Your task to perform on an android device: change notifications settings Image 0: 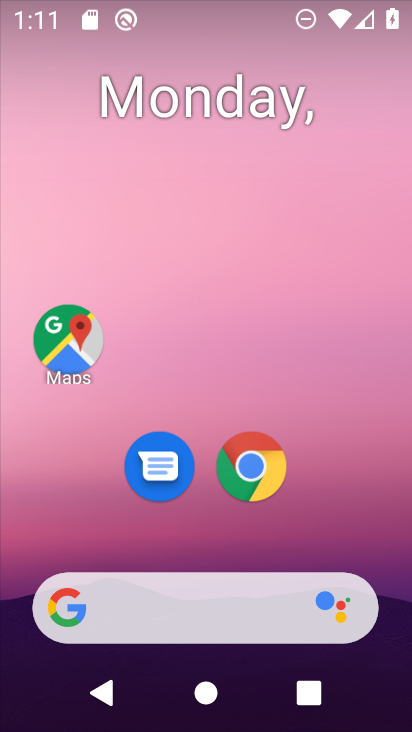
Step 0: drag from (208, 497) to (255, 47)
Your task to perform on an android device: change notifications settings Image 1: 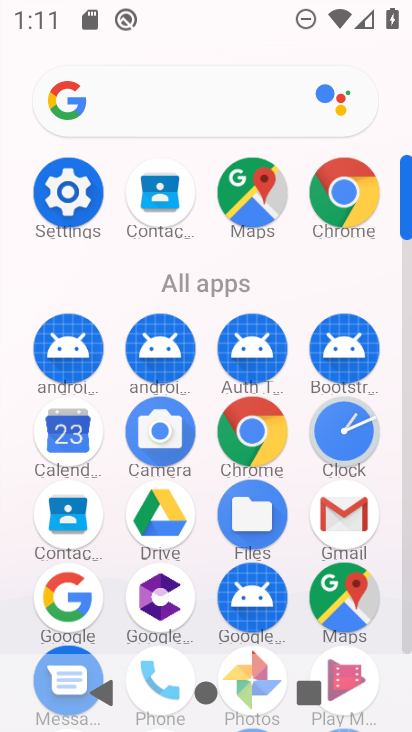
Step 1: click (79, 196)
Your task to perform on an android device: change notifications settings Image 2: 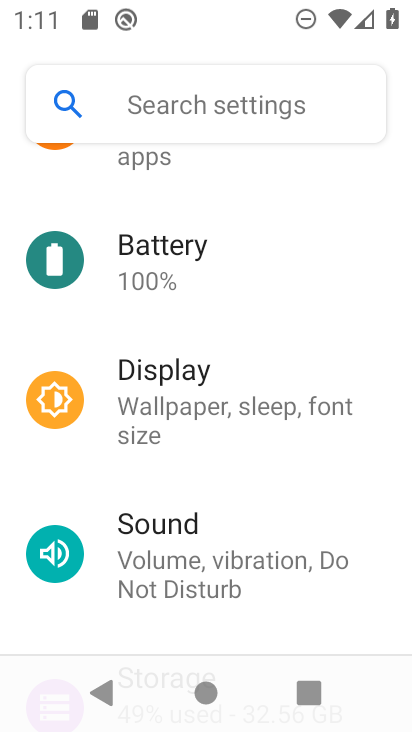
Step 2: drag from (198, 238) to (190, 601)
Your task to perform on an android device: change notifications settings Image 3: 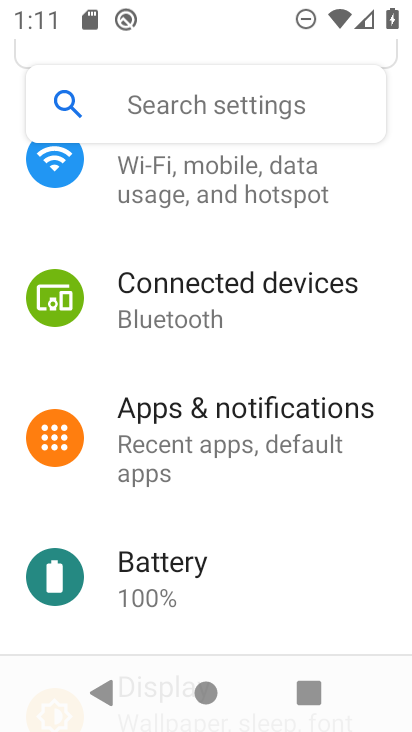
Step 3: click (289, 434)
Your task to perform on an android device: change notifications settings Image 4: 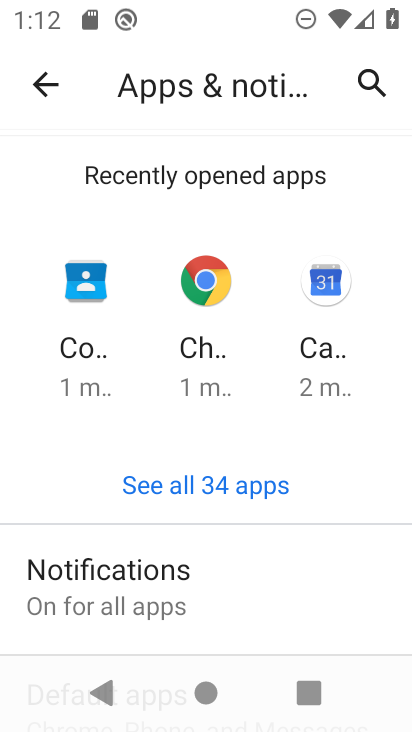
Step 4: click (129, 593)
Your task to perform on an android device: change notifications settings Image 5: 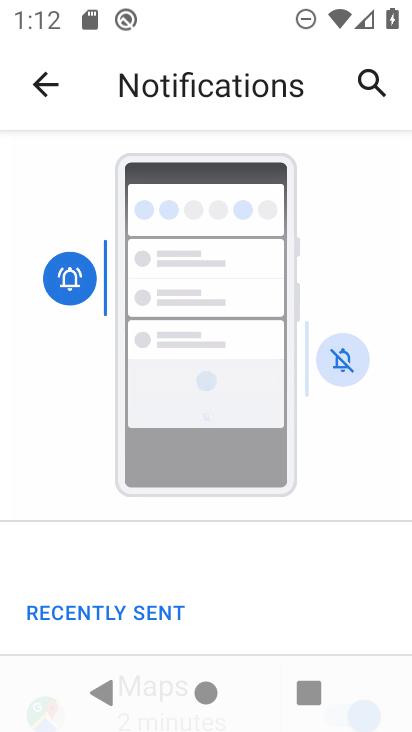
Step 5: drag from (194, 570) to (230, 209)
Your task to perform on an android device: change notifications settings Image 6: 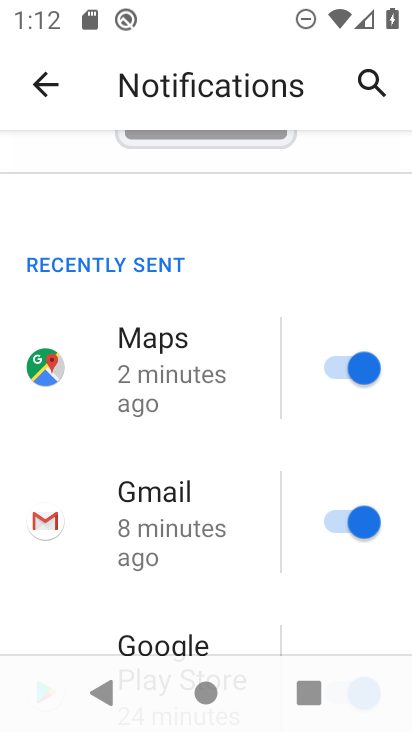
Step 6: drag from (146, 557) to (191, 214)
Your task to perform on an android device: change notifications settings Image 7: 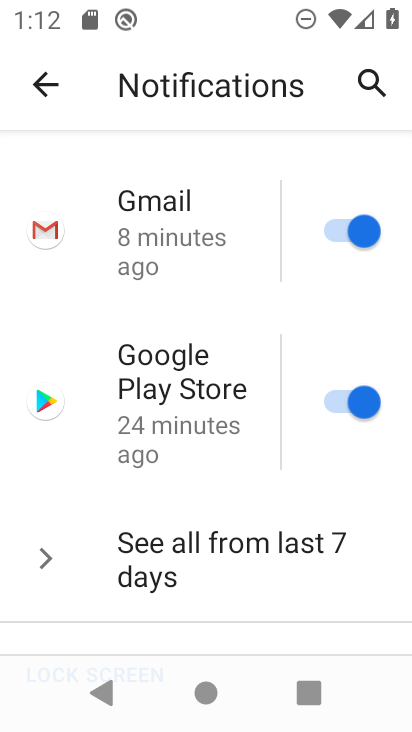
Step 7: drag from (164, 587) to (176, 312)
Your task to perform on an android device: change notifications settings Image 8: 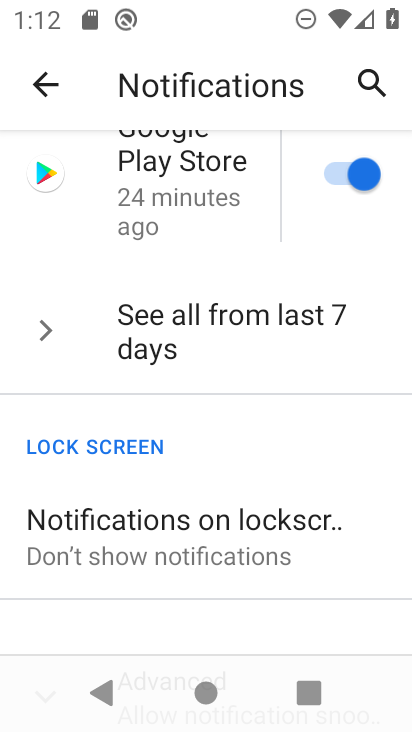
Step 8: drag from (314, 311) to (274, 634)
Your task to perform on an android device: change notifications settings Image 9: 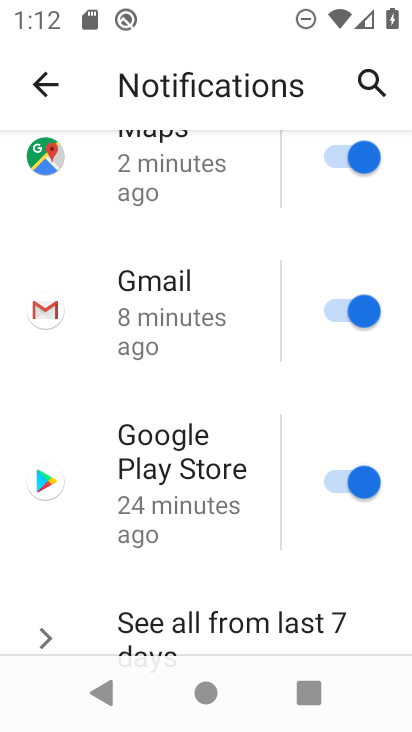
Step 9: click (331, 476)
Your task to perform on an android device: change notifications settings Image 10: 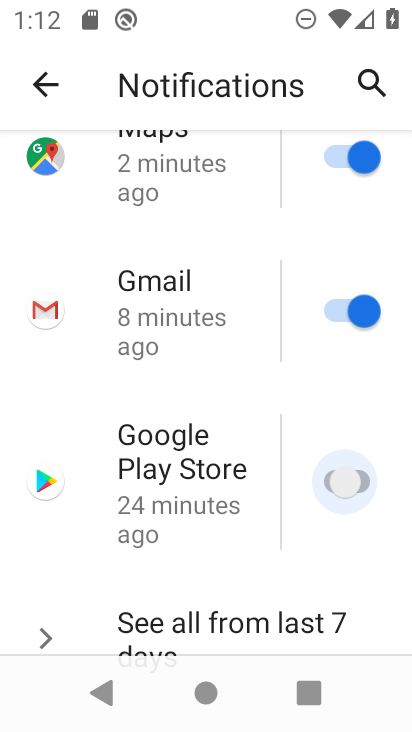
Step 10: click (321, 317)
Your task to perform on an android device: change notifications settings Image 11: 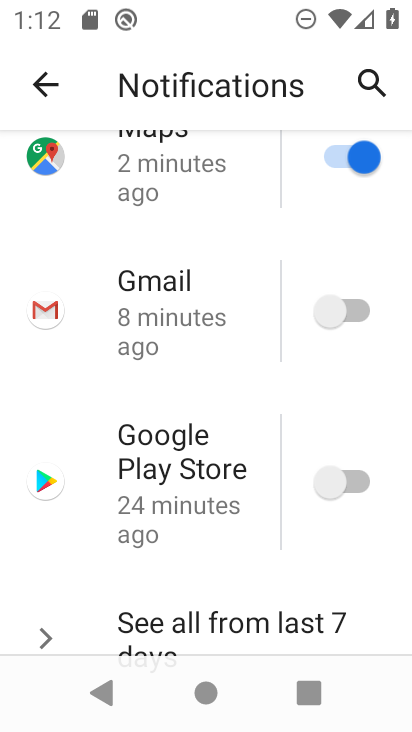
Step 11: click (324, 154)
Your task to perform on an android device: change notifications settings Image 12: 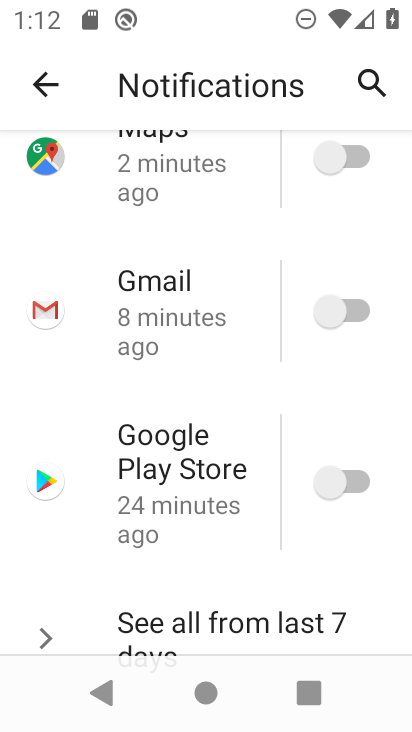
Step 12: drag from (205, 559) to (222, 438)
Your task to perform on an android device: change notifications settings Image 13: 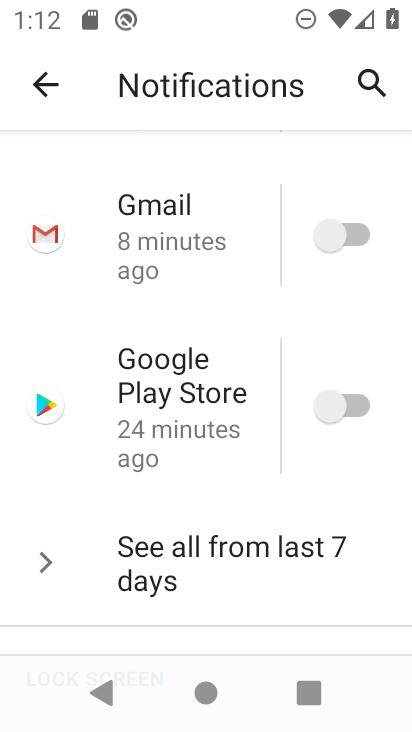
Step 13: click (199, 545)
Your task to perform on an android device: change notifications settings Image 14: 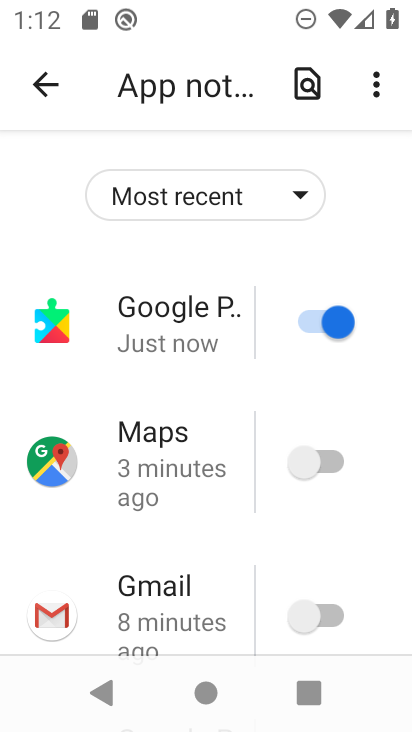
Step 14: drag from (199, 533) to (217, 328)
Your task to perform on an android device: change notifications settings Image 15: 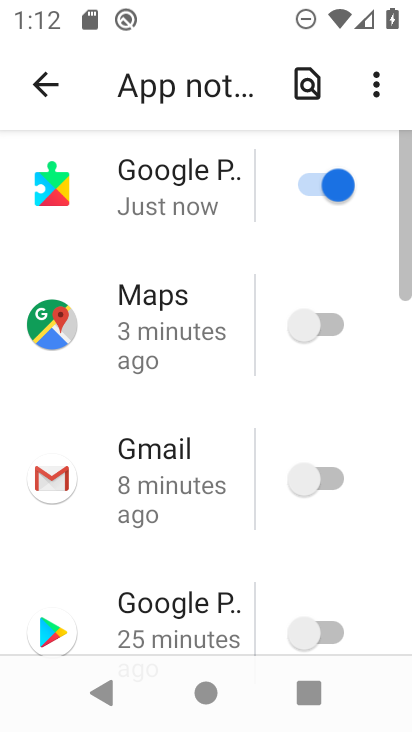
Step 15: click (309, 191)
Your task to perform on an android device: change notifications settings Image 16: 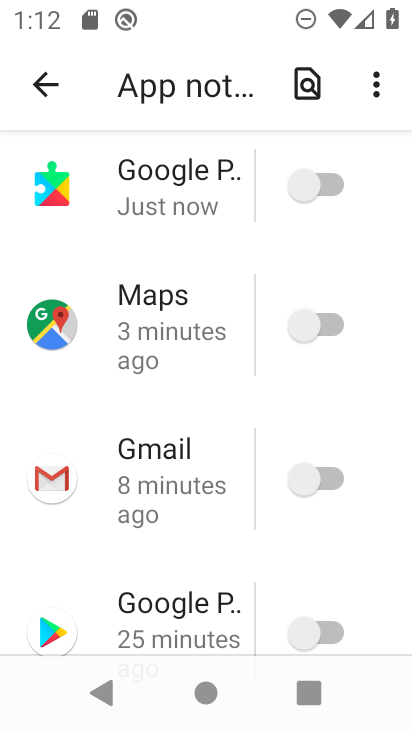
Step 16: drag from (182, 560) to (239, 16)
Your task to perform on an android device: change notifications settings Image 17: 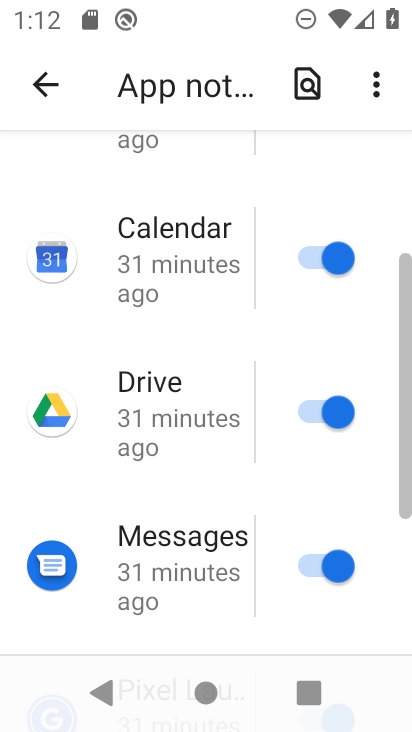
Step 17: click (283, 235)
Your task to perform on an android device: change notifications settings Image 18: 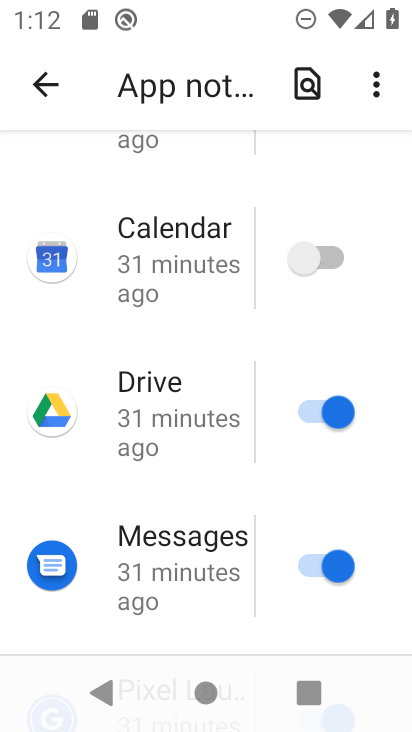
Step 18: click (301, 418)
Your task to perform on an android device: change notifications settings Image 19: 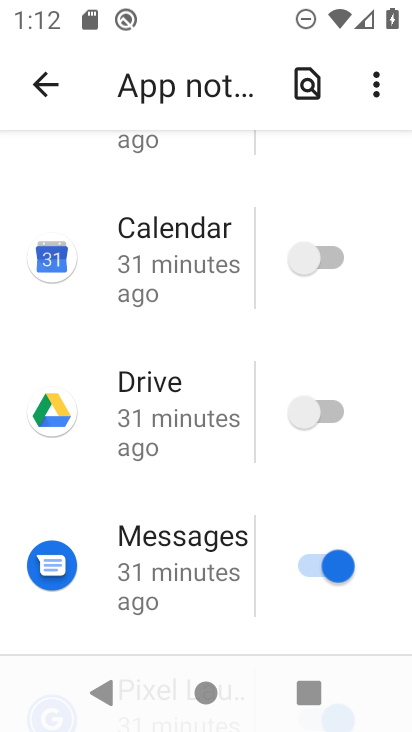
Step 19: click (299, 567)
Your task to perform on an android device: change notifications settings Image 20: 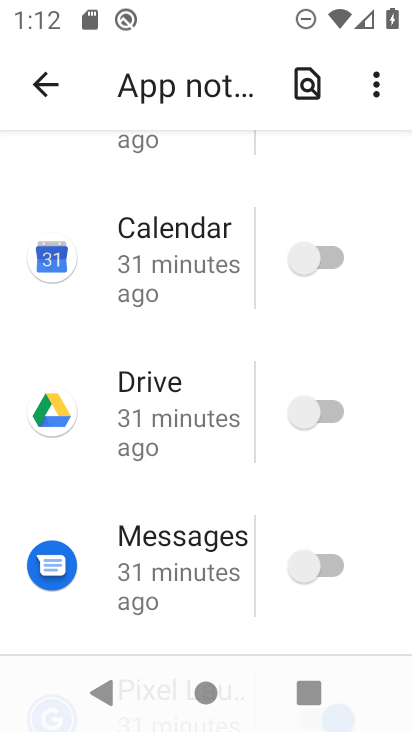
Step 20: drag from (117, 578) to (244, 55)
Your task to perform on an android device: change notifications settings Image 21: 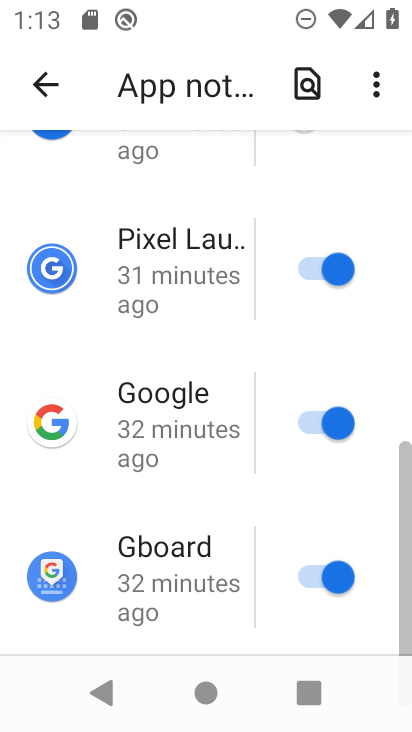
Step 21: click (310, 262)
Your task to perform on an android device: change notifications settings Image 22: 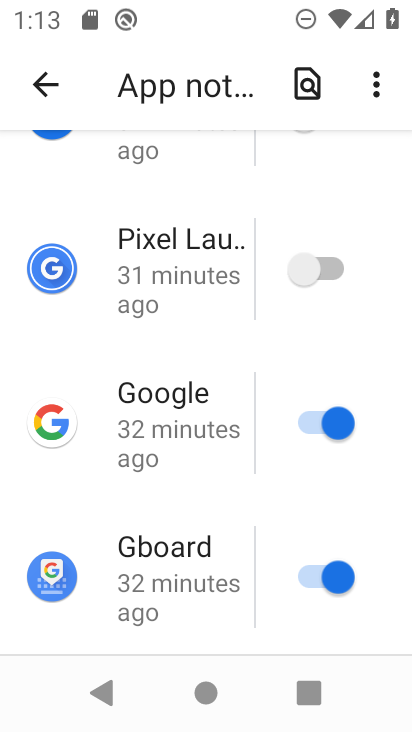
Step 22: click (306, 417)
Your task to perform on an android device: change notifications settings Image 23: 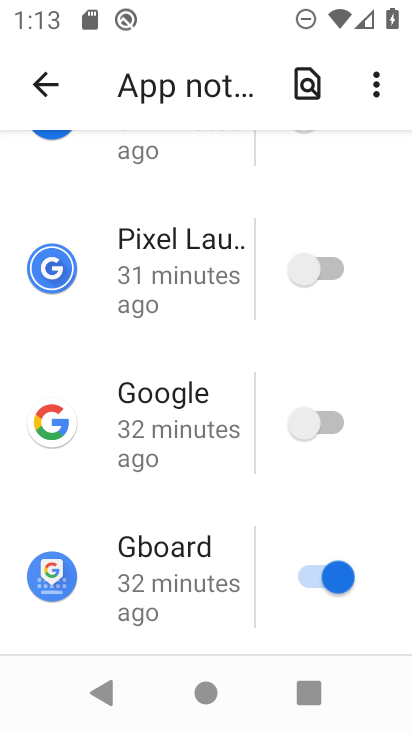
Step 23: click (311, 565)
Your task to perform on an android device: change notifications settings Image 24: 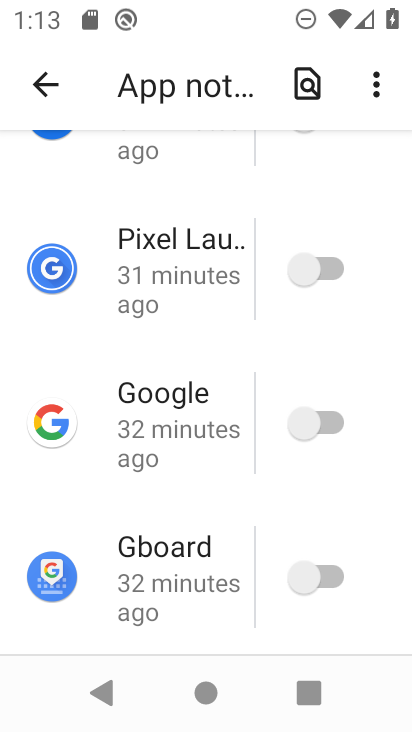
Step 24: task complete